Your task to perform on an android device: change the upload size in google photos Image 0: 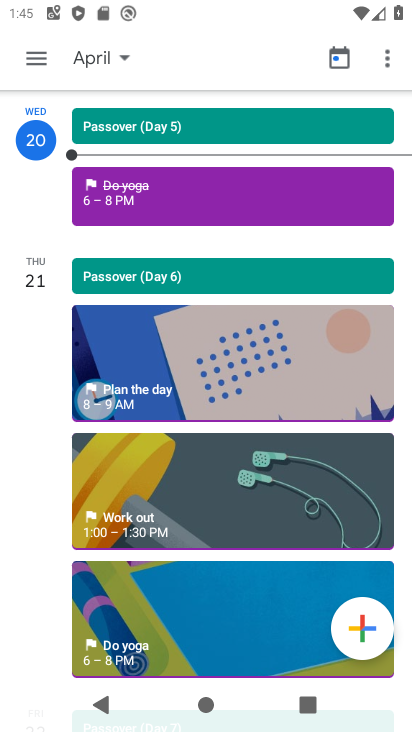
Step 0: press back button
Your task to perform on an android device: change the upload size in google photos Image 1: 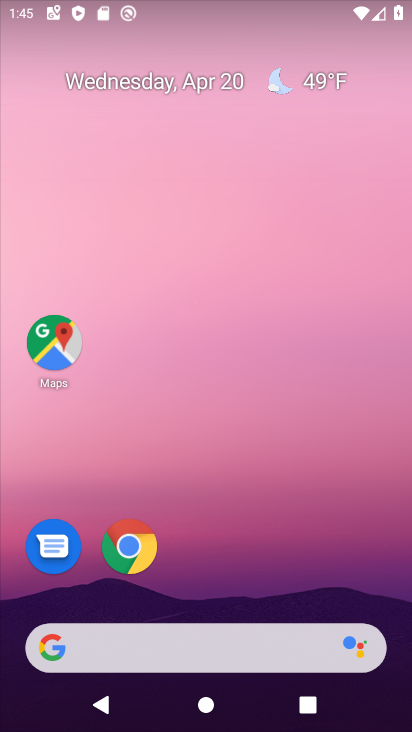
Step 1: drag from (220, 556) to (280, 34)
Your task to perform on an android device: change the upload size in google photos Image 2: 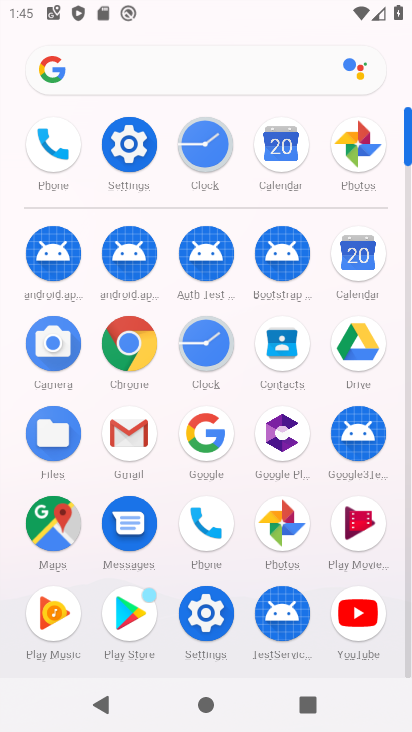
Step 2: click (289, 525)
Your task to perform on an android device: change the upload size in google photos Image 3: 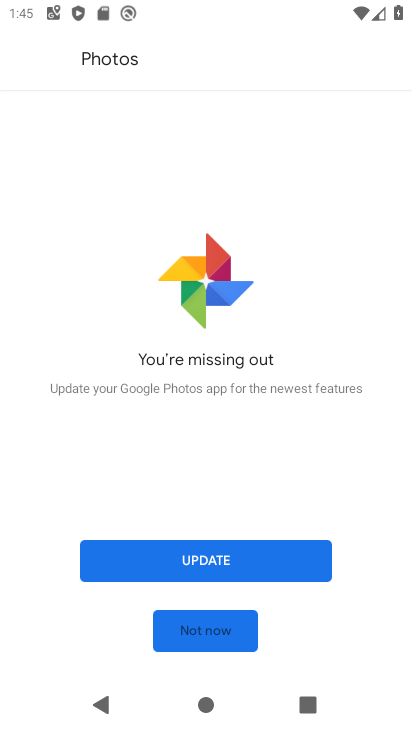
Step 3: click (213, 633)
Your task to perform on an android device: change the upload size in google photos Image 4: 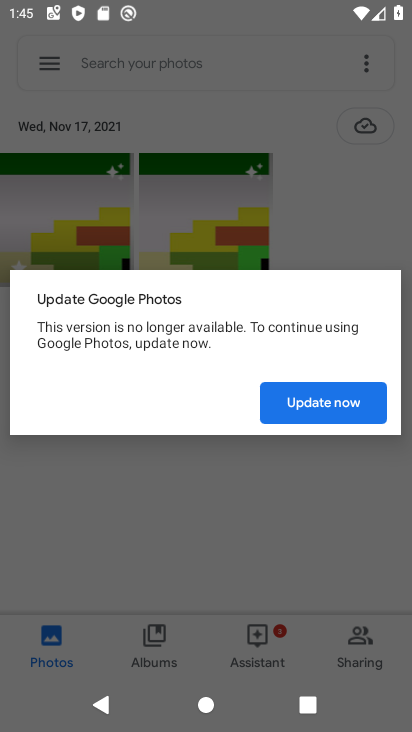
Step 4: click (293, 410)
Your task to perform on an android device: change the upload size in google photos Image 5: 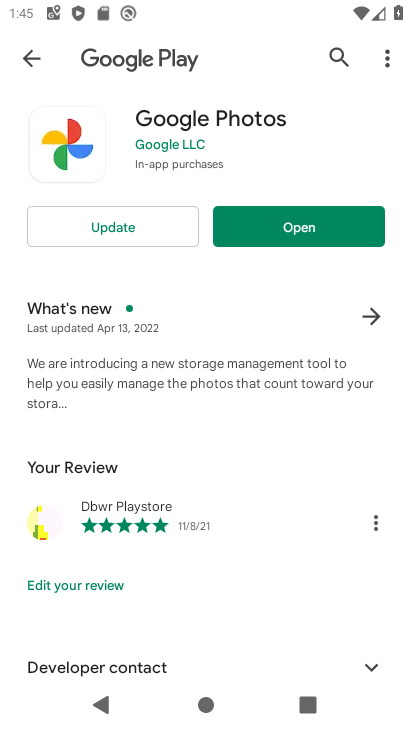
Step 5: click (247, 237)
Your task to perform on an android device: change the upload size in google photos Image 6: 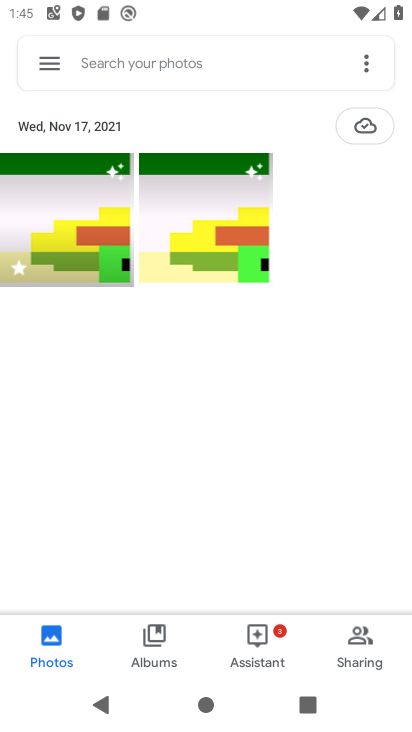
Step 6: click (50, 58)
Your task to perform on an android device: change the upload size in google photos Image 7: 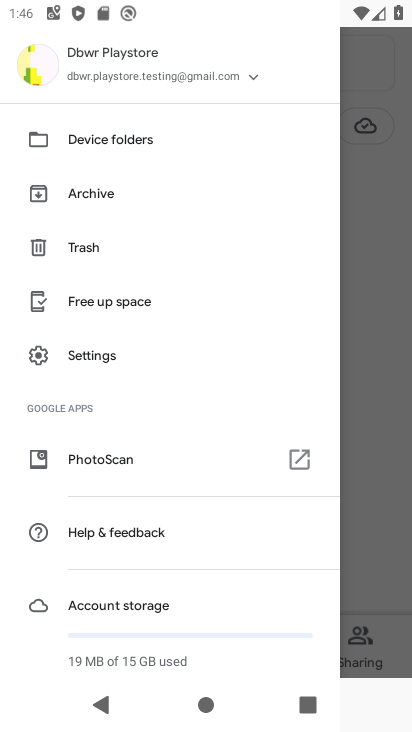
Step 7: click (116, 356)
Your task to perform on an android device: change the upload size in google photos Image 8: 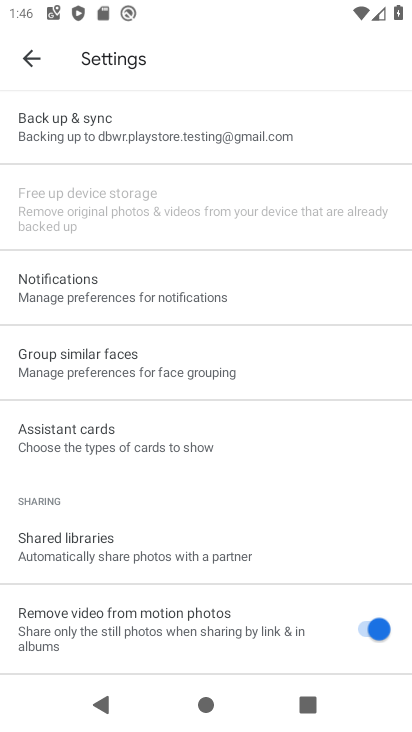
Step 8: click (87, 135)
Your task to perform on an android device: change the upload size in google photos Image 9: 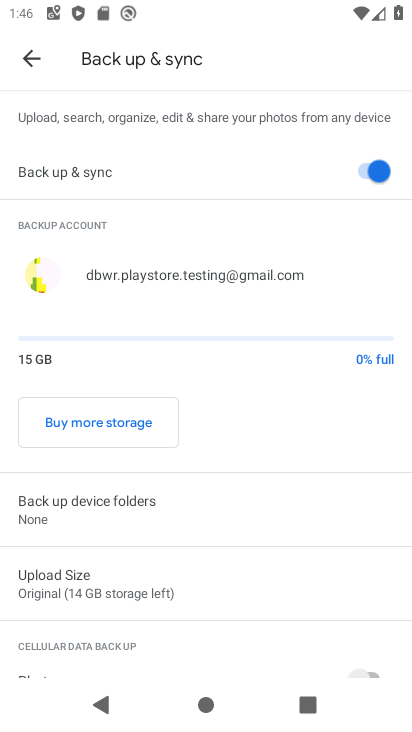
Step 9: click (138, 588)
Your task to perform on an android device: change the upload size in google photos Image 10: 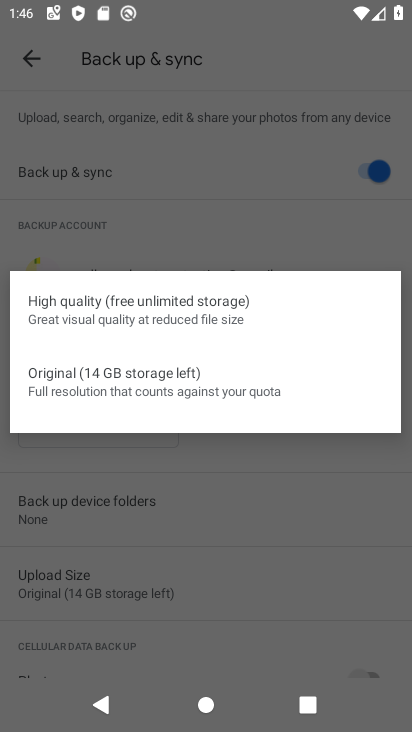
Step 10: click (101, 303)
Your task to perform on an android device: change the upload size in google photos Image 11: 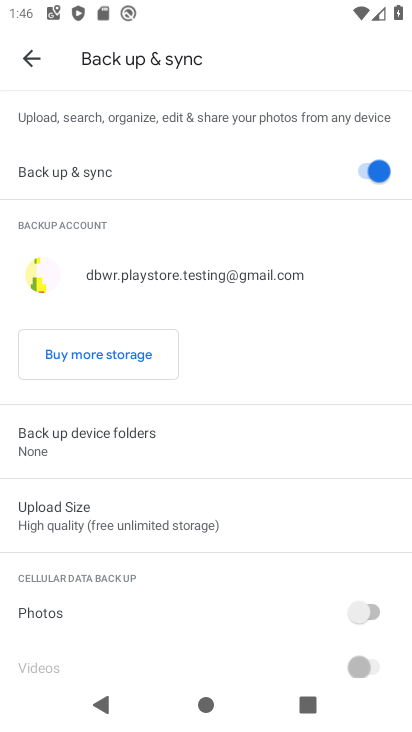
Step 11: task complete